Your task to perform on an android device: Go to Maps Image 0: 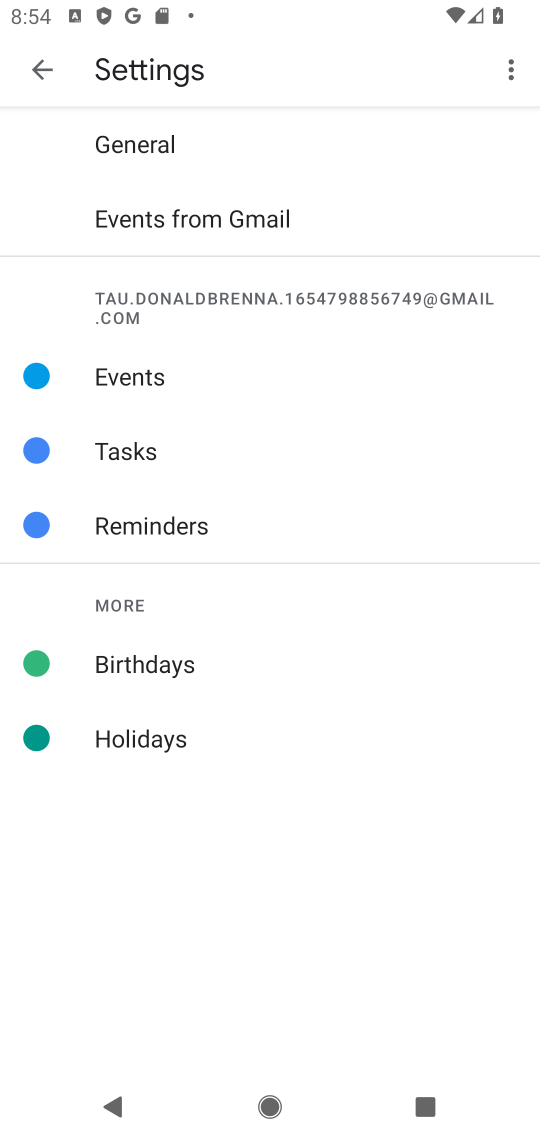
Step 0: press home button
Your task to perform on an android device: Go to Maps Image 1: 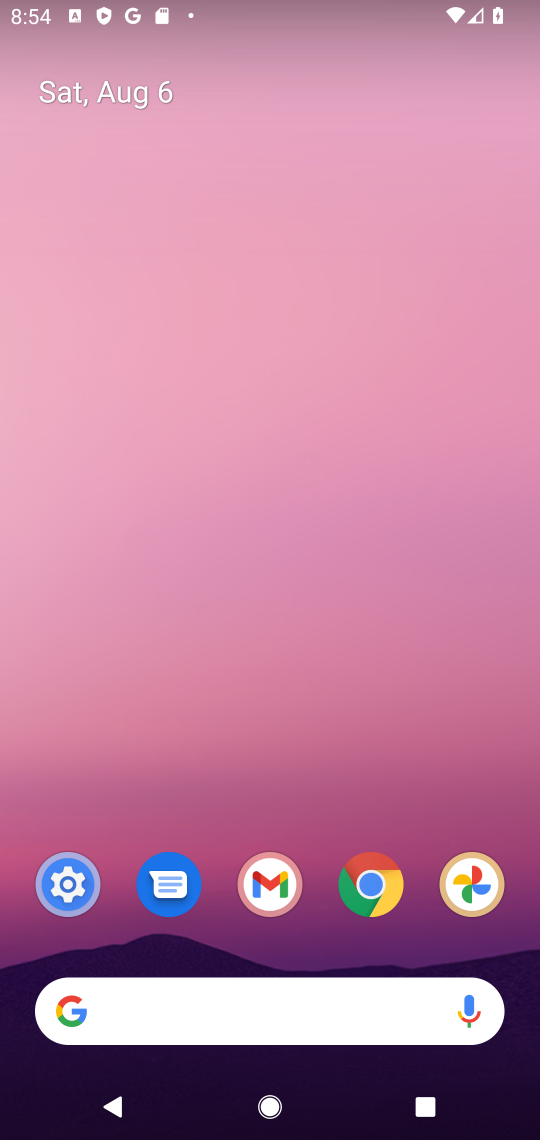
Step 1: drag from (321, 953) to (383, 73)
Your task to perform on an android device: Go to Maps Image 2: 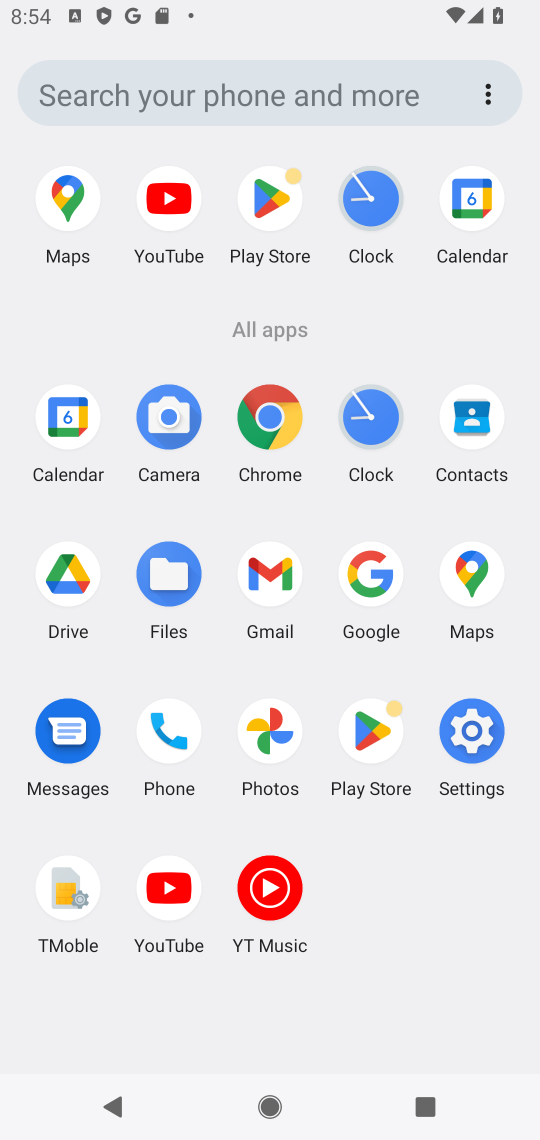
Step 2: click (470, 570)
Your task to perform on an android device: Go to Maps Image 3: 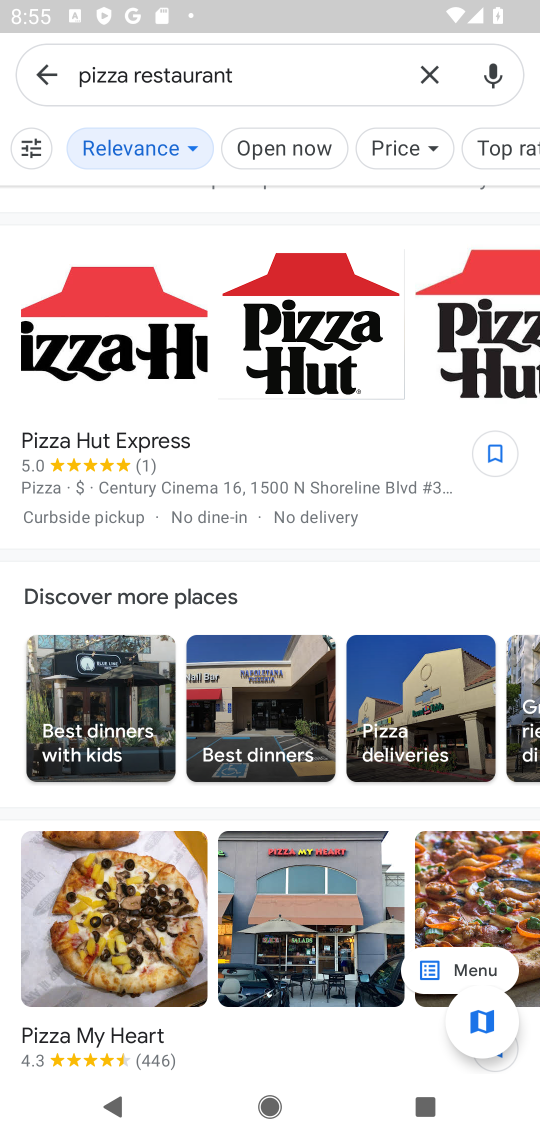
Step 3: click (425, 67)
Your task to perform on an android device: Go to Maps Image 4: 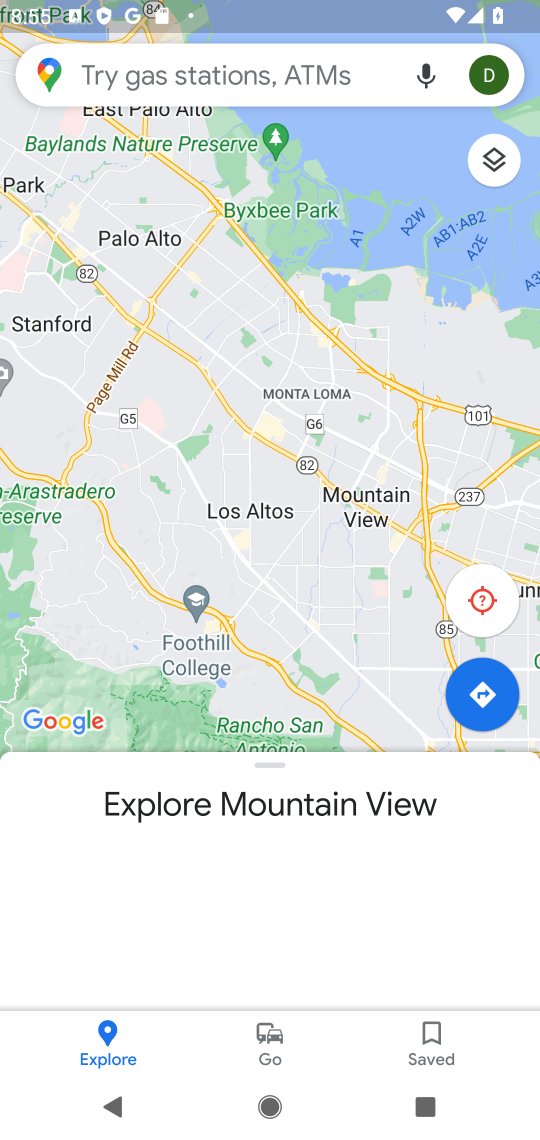
Step 4: task complete